Your task to perform on an android device: make emails show in primary in the gmail app Image 0: 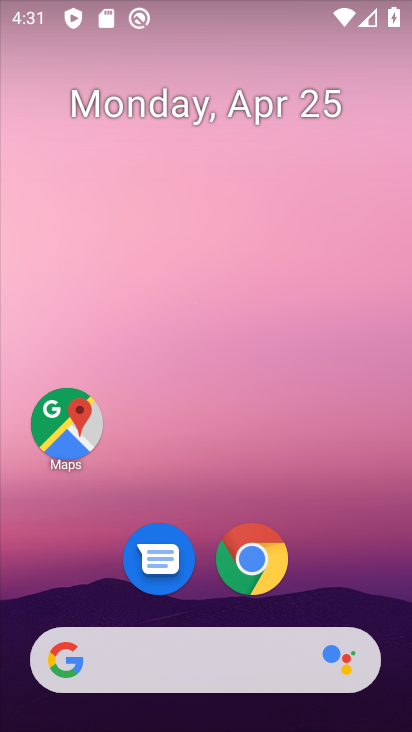
Step 0: drag from (232, 611) to (241, 107)
Your task to perform on an android device: make emails show in primary in the gmail app Image 1: 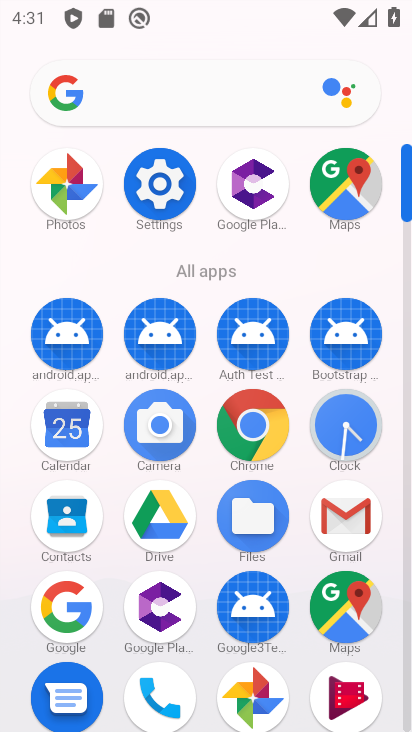
Step 1: click (357, 515)
Your task to perform on an android device: make emails show in primary in the gmail app Image 2: 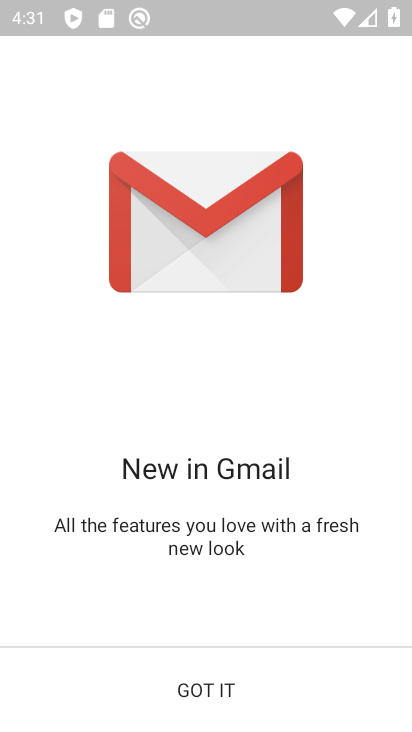
Step 2: click (203, 663)
Your task to perform on an android device: make emails show in primary in the gmail app Image 3: 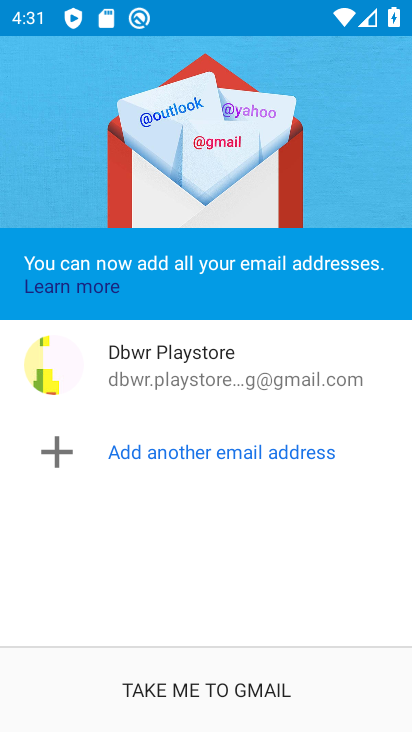
Step 3: click (248, 704)
Your task to perform on an android device: make emails show in primary in the gmail app Image 4: 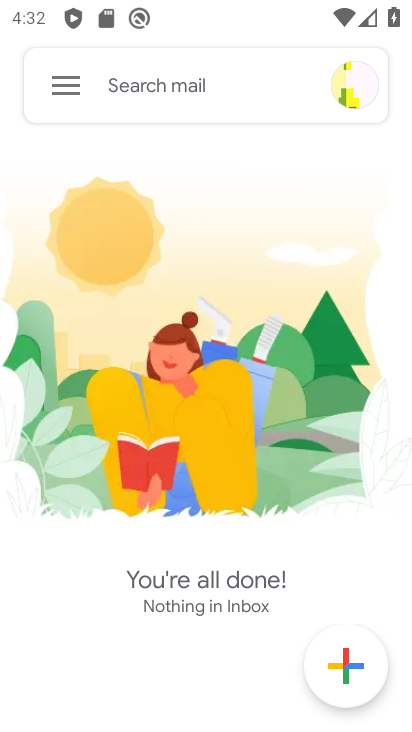
Step 4: click (84, 75)
Your task to perform on an android device: make emails show in primary in the gmail app Image 5: 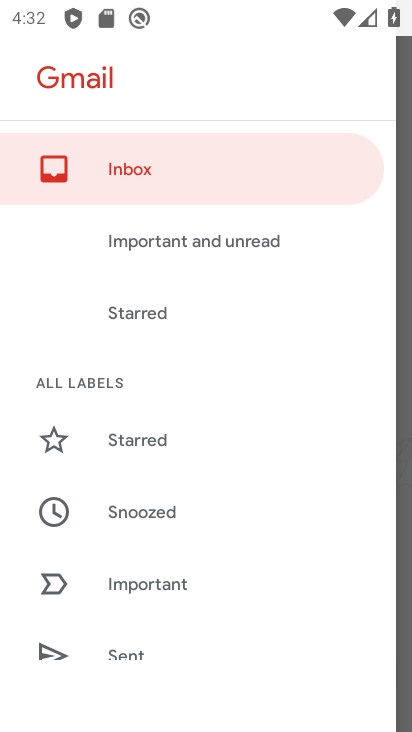
Step 5: task complete